Your task to perform on an android device: find photos in the google photos app Image 0: 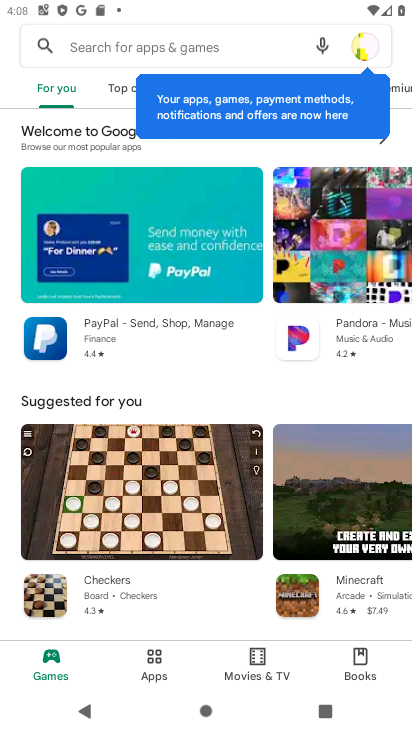
Step 0: press home button
Your task to perform on an android device: find photos in the google photos app Image 1: 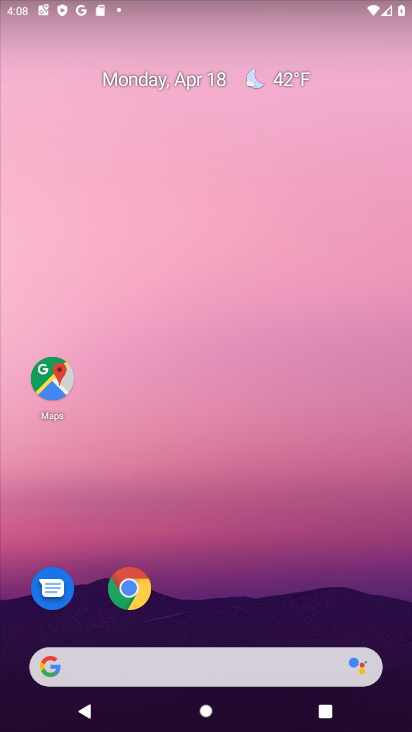
Step 1: drag from (233, 541) to (240, 153)
Your task to perform on an android device: find photos in the google photos app Image 2: 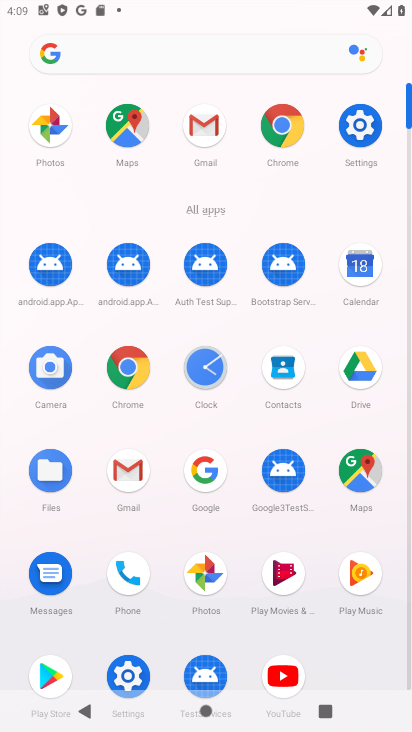
Step 2: click (63, 129)
Your task to perform on an android device: find photos in the google photos app Image 3: 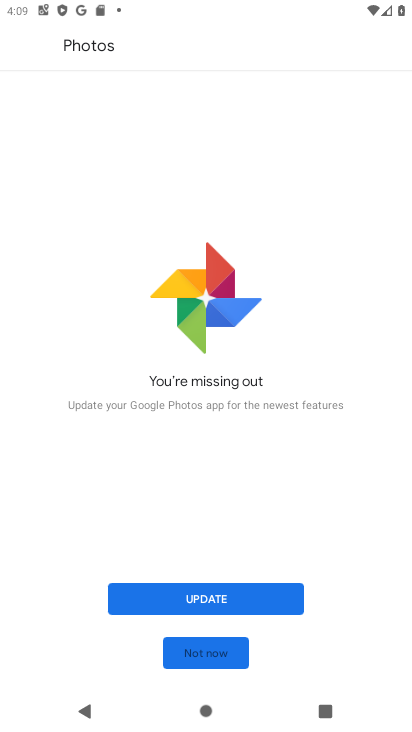
Step 3: click (215, 601)
Your task to perform on an android device: find photos in the google photos app Image 4: 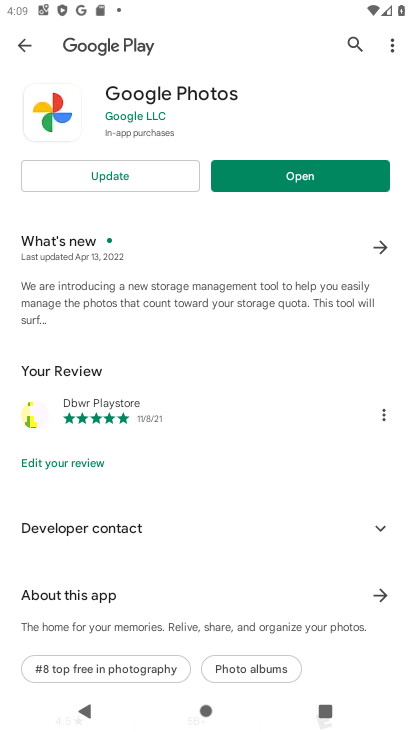
Step 4: click (292, 177)
Your task to perform on an android device: find photos in the google photos app Image 5: 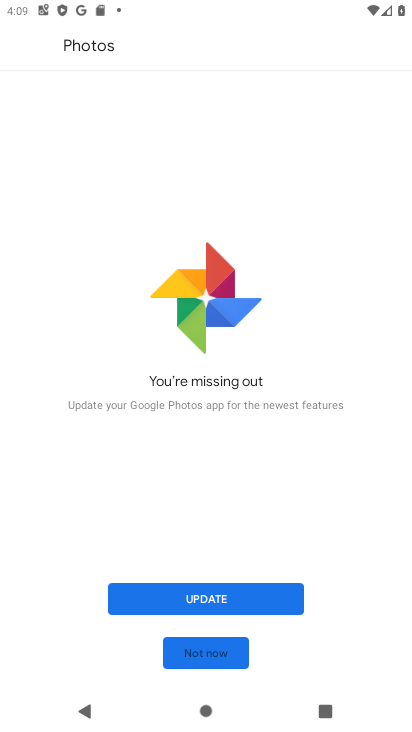
Step 5: click (173, 602)
Your task to perform on an android device: find photos in the google photos app Image 6: 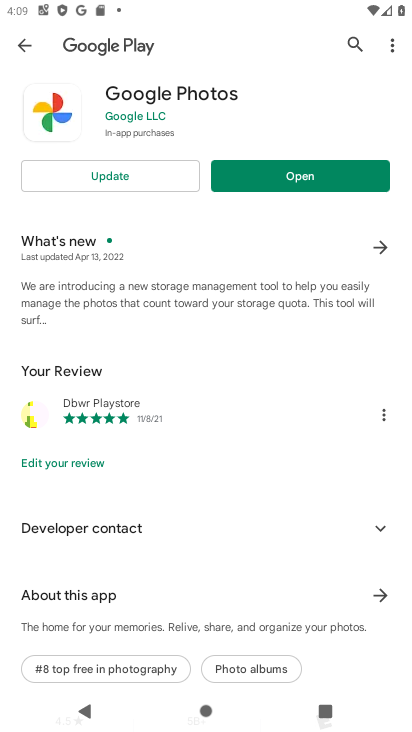
Step 6: click (264, 194)
Your task to perform on an android device: find photos in the google photos app Image 7: 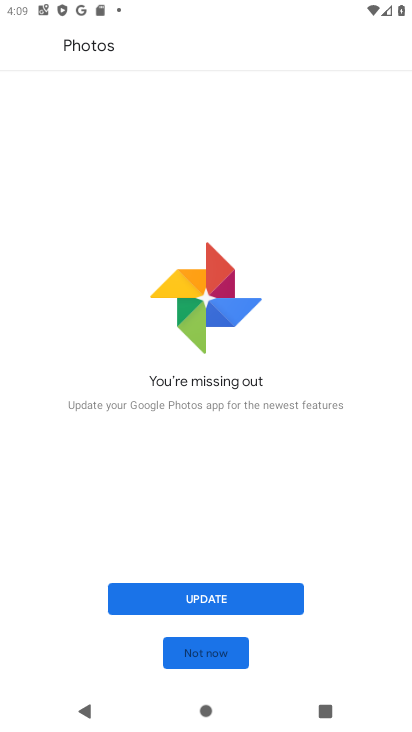
Step 7: click (198, 603)
Your task to perform on an android device: find photos in the google photos app Image 8: 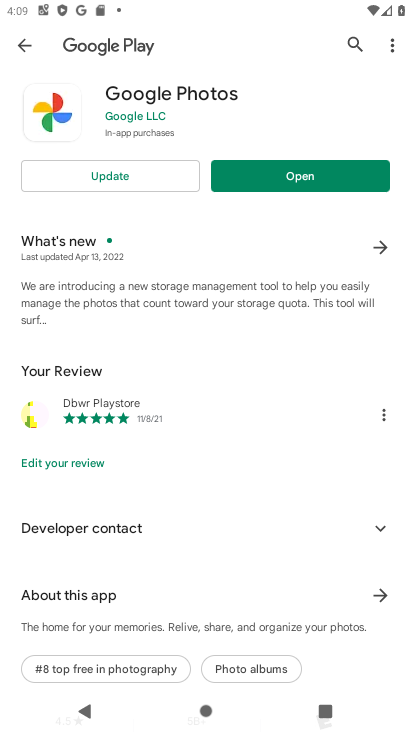
Step 8: click (298, 165)
Your task to perform on an android device: find photos in the google photos app Image 9: 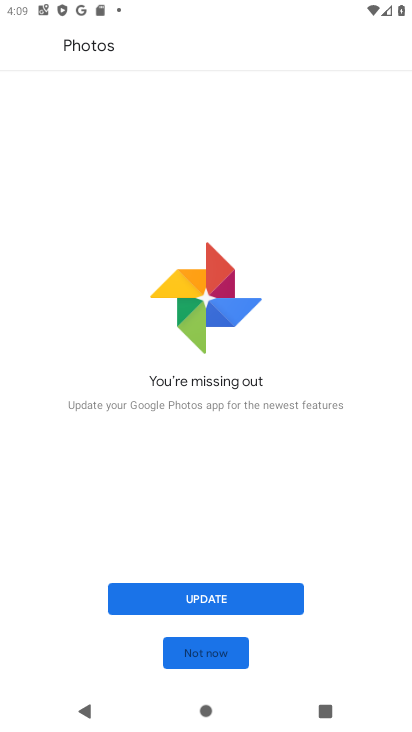
Step 9: click (204, 653)
Your task to perform on an android device: find photos in the google photos app Image 10: 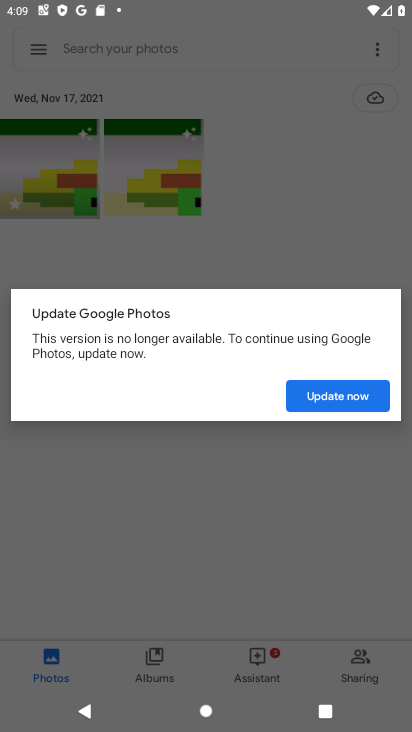
Step 10: click (344, 381)
Your task to perform on an android device: find photos in the google photos app Image 11: 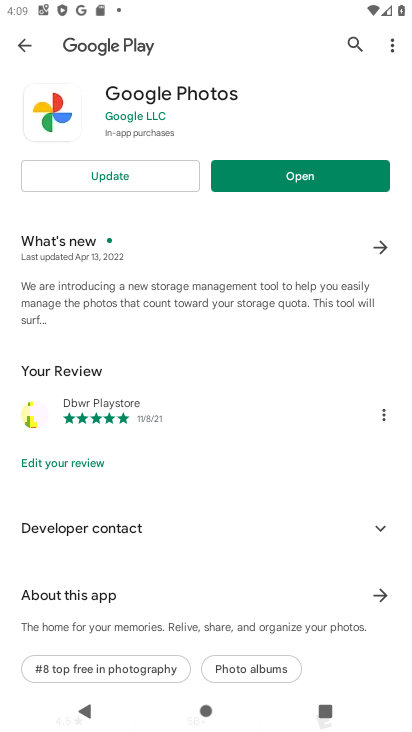
Step 11: click (309, 173)
Your task to perform on an android device: find photos in the google photos app Image 12: 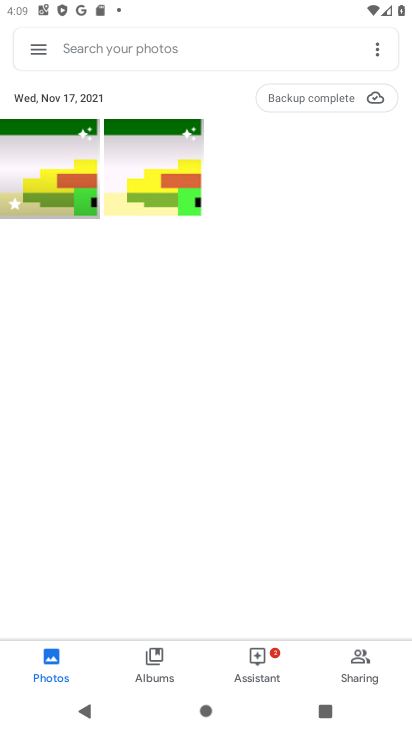
Step 12: task complete